Your task to perform on an android device: Show me recent news Image 0: 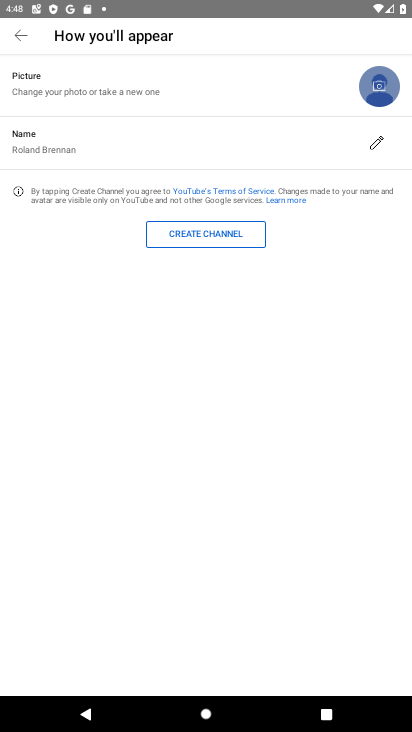
Step 0: press home button
Your task to perform on an android device: Show me recent news Image 1: 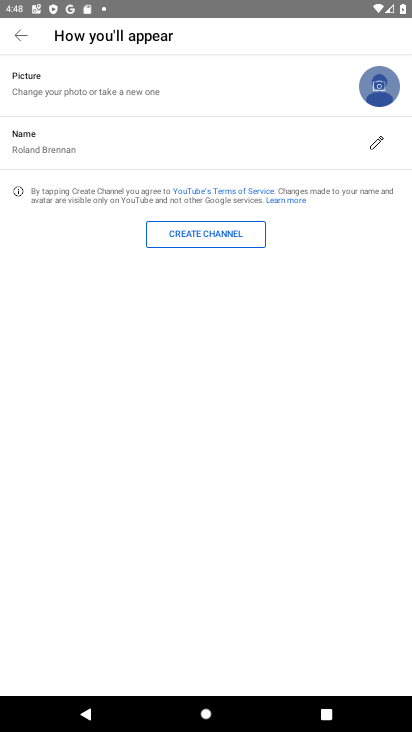
Step 1: task complete